Your task to perform on an android device: turn off notifications settings in the gmail app Image 0: 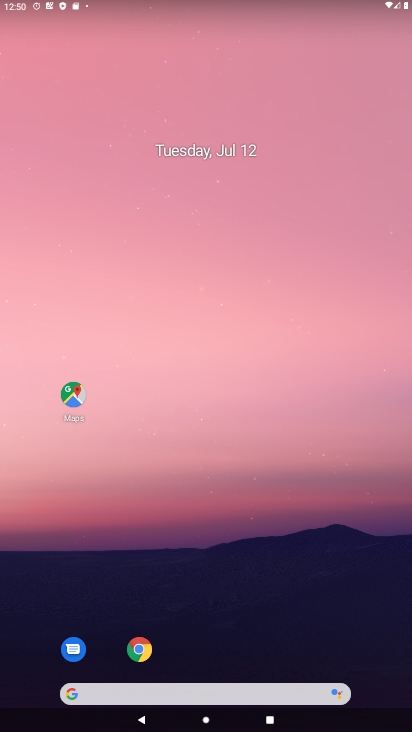
Step 0: drag from (341, 639) to (249, 131)
Your task to perform on an android device: turn off notifications settings in the gmail app Image 1: 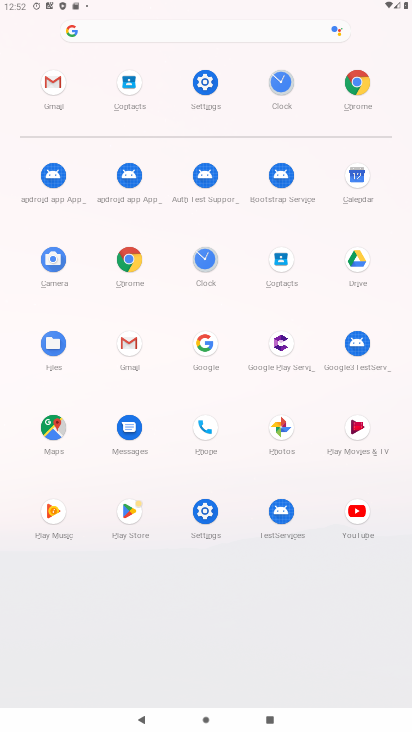
Step 1: click (122, 348)
Your task to perform on an android device: turn off notifications settings in the gmail app Image 2: 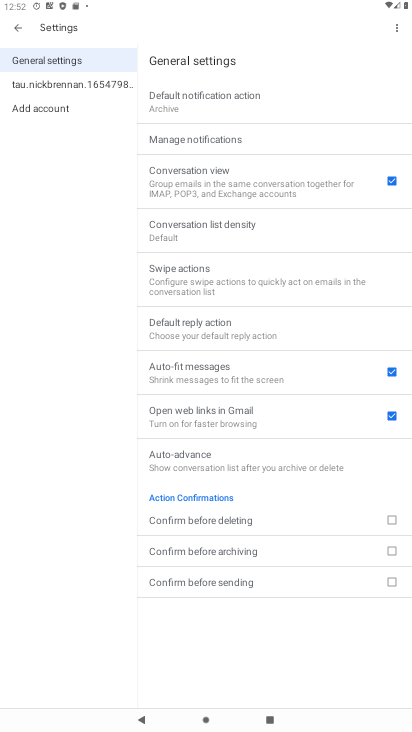
Step 2: click (75, 78)
Your task to perform on an android device: turn off notifications settings in the gmail app Image 3: 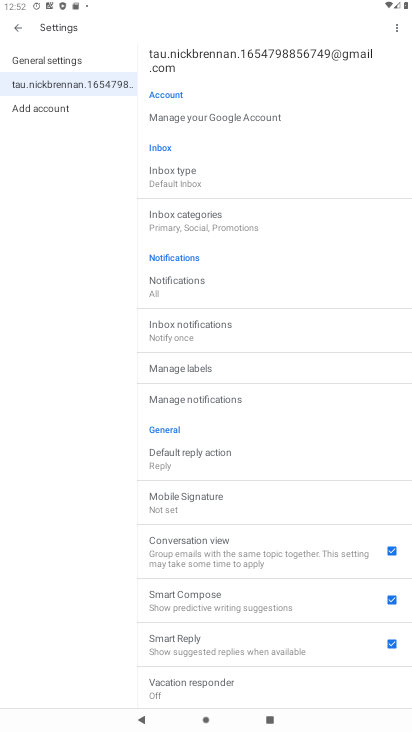
Step 3: click (189, 293)
Your task to perform on an android device: turn off notifications settings in the gmail app Image 4: 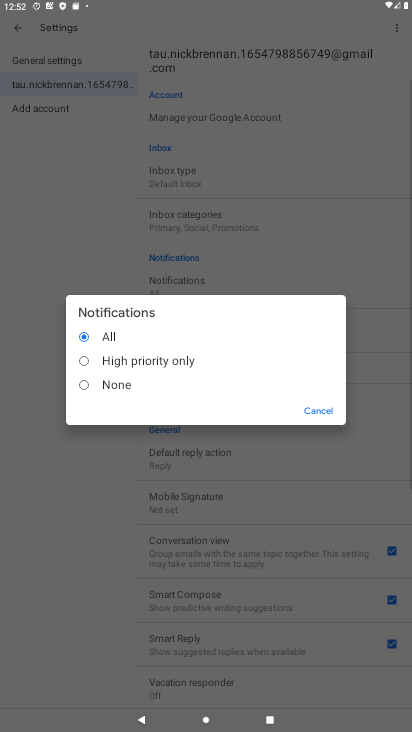
Step 4: click (106, 386)
Your task to perform on an android device: turn off notifications settings in the gmail app Image 5: 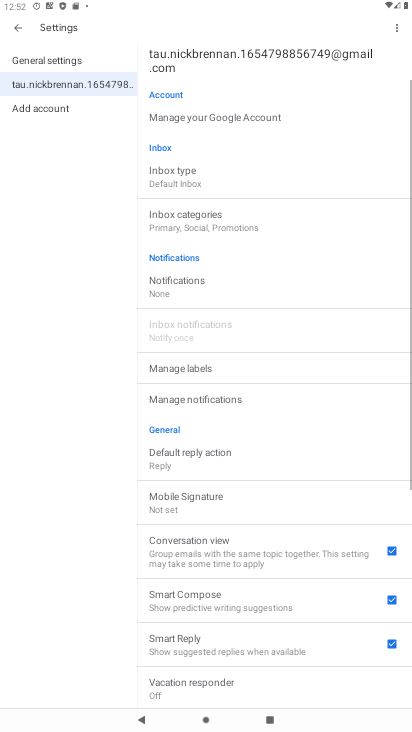
Step 5: task complete